Your task to perform on an android device: choose inbox layout in the gmail app Image 0: 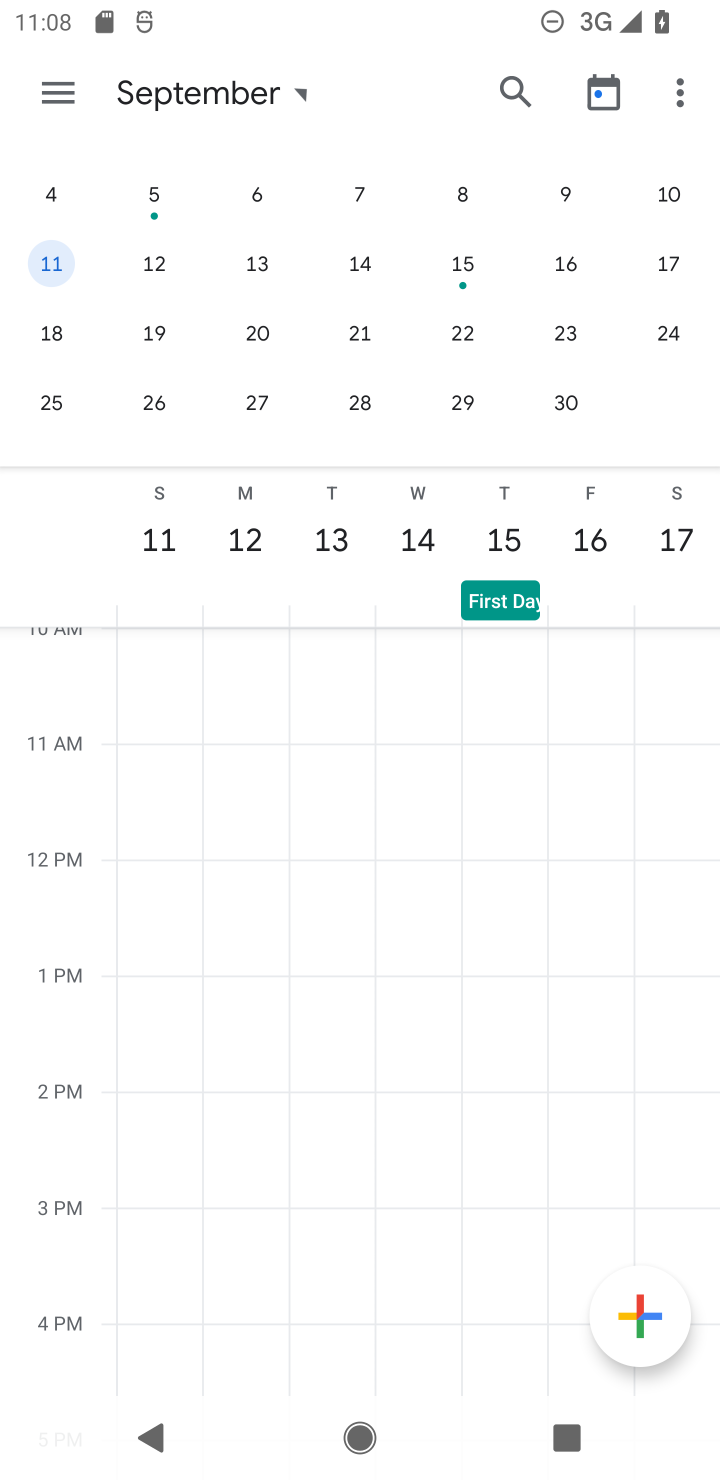
Step 0: press home button
Your task to perform on an android device: choose inbox layout in the gmail app Image 1: 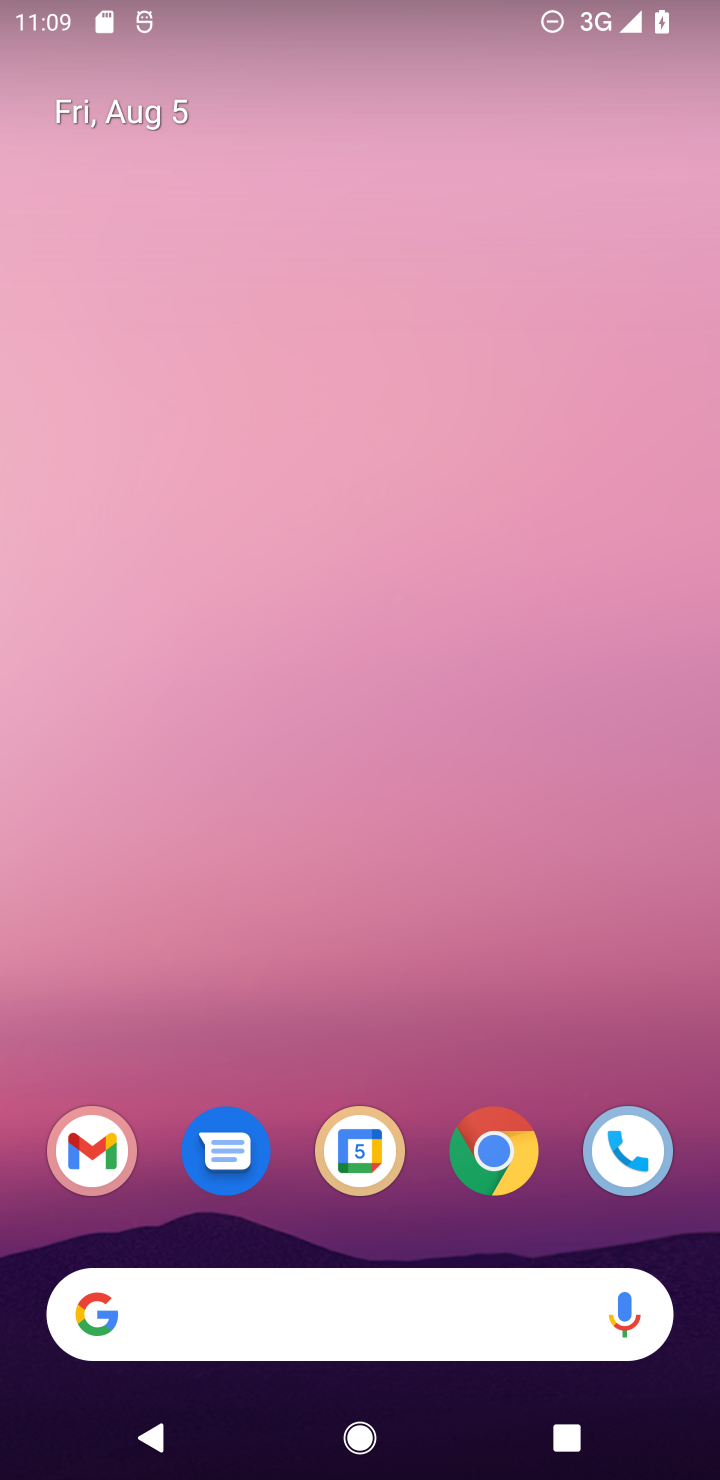
Step 1: click (496, 1158)
Your task to perform on an android device: choose inbox layout in the gmail app Image 2: 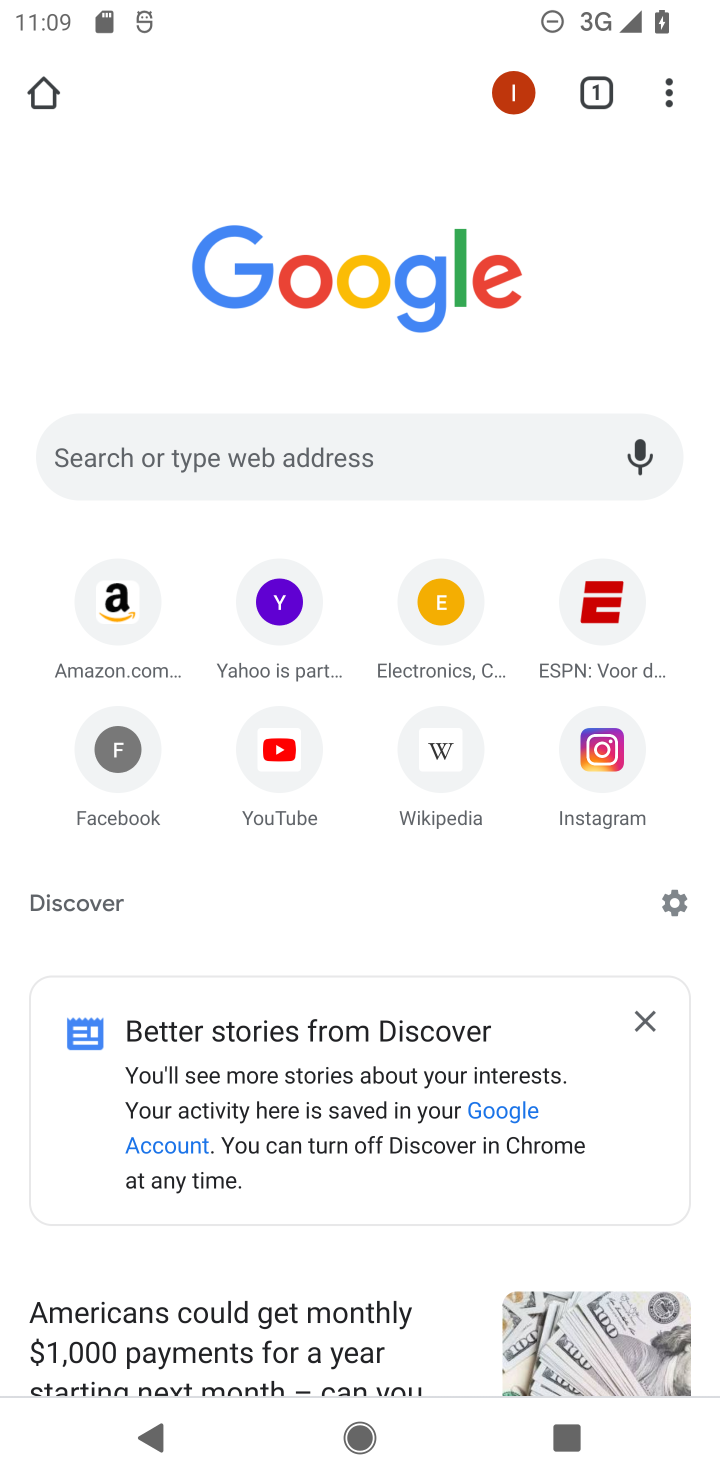
Step 2: press home button
Your task to perform on an android device: choose inbox layout in the gmail app Image 3: 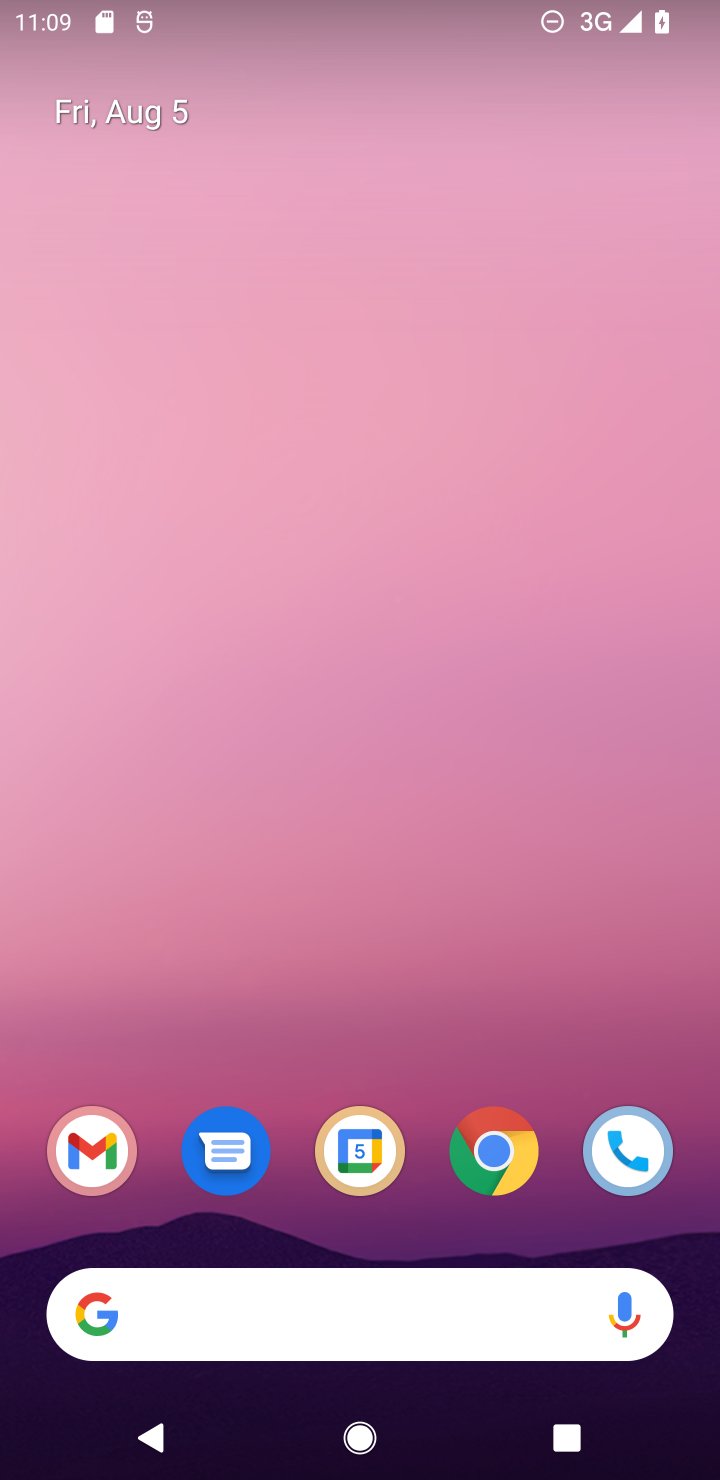
Step 3: click (93, 1149)
Your task to perform on an android device: choose inbox layout in the gmail app Image 4: 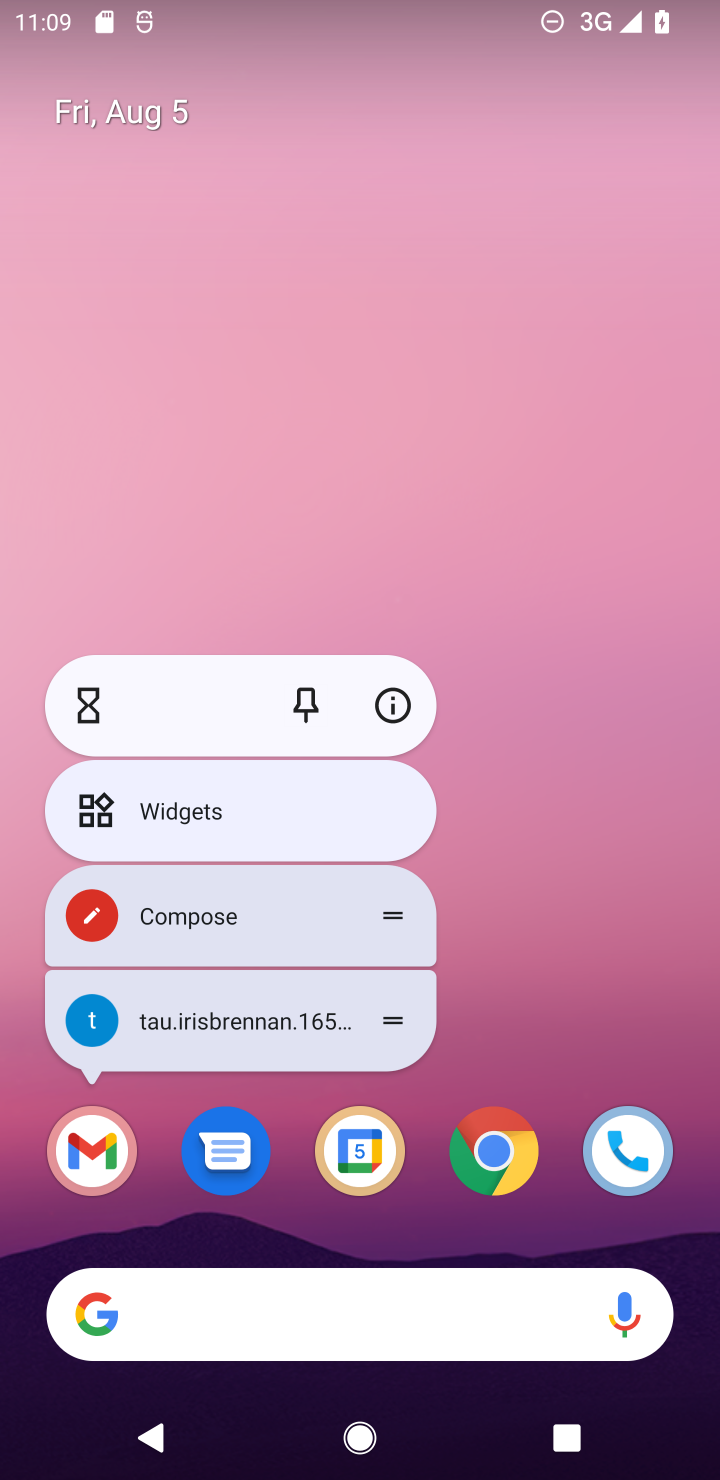
Step 4: click (82, 1155)
Your task to perform on an android device: choose inbox layout in the gmail app Image 5: 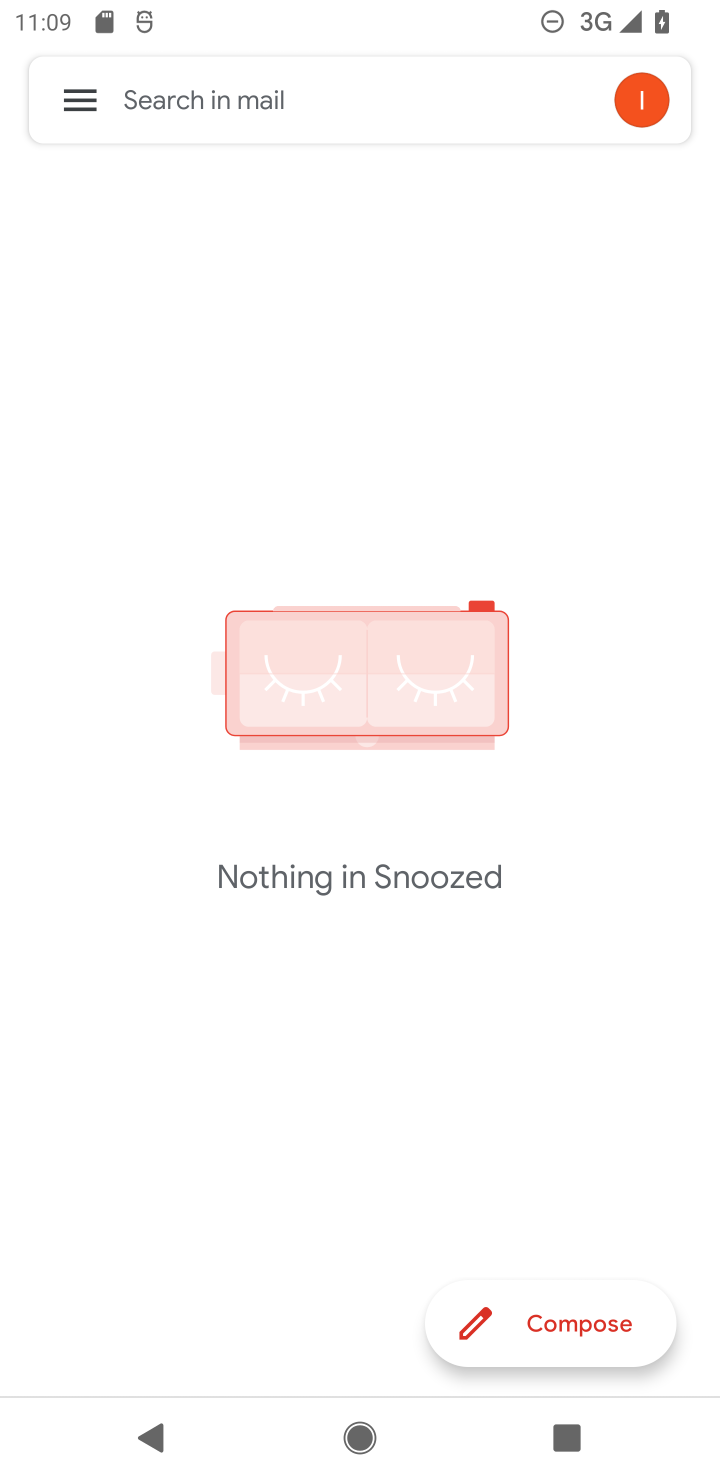
Step 5: click (81, 94)
Your task to perform on an android device: choose inbox layout in the gmail app Image 6: 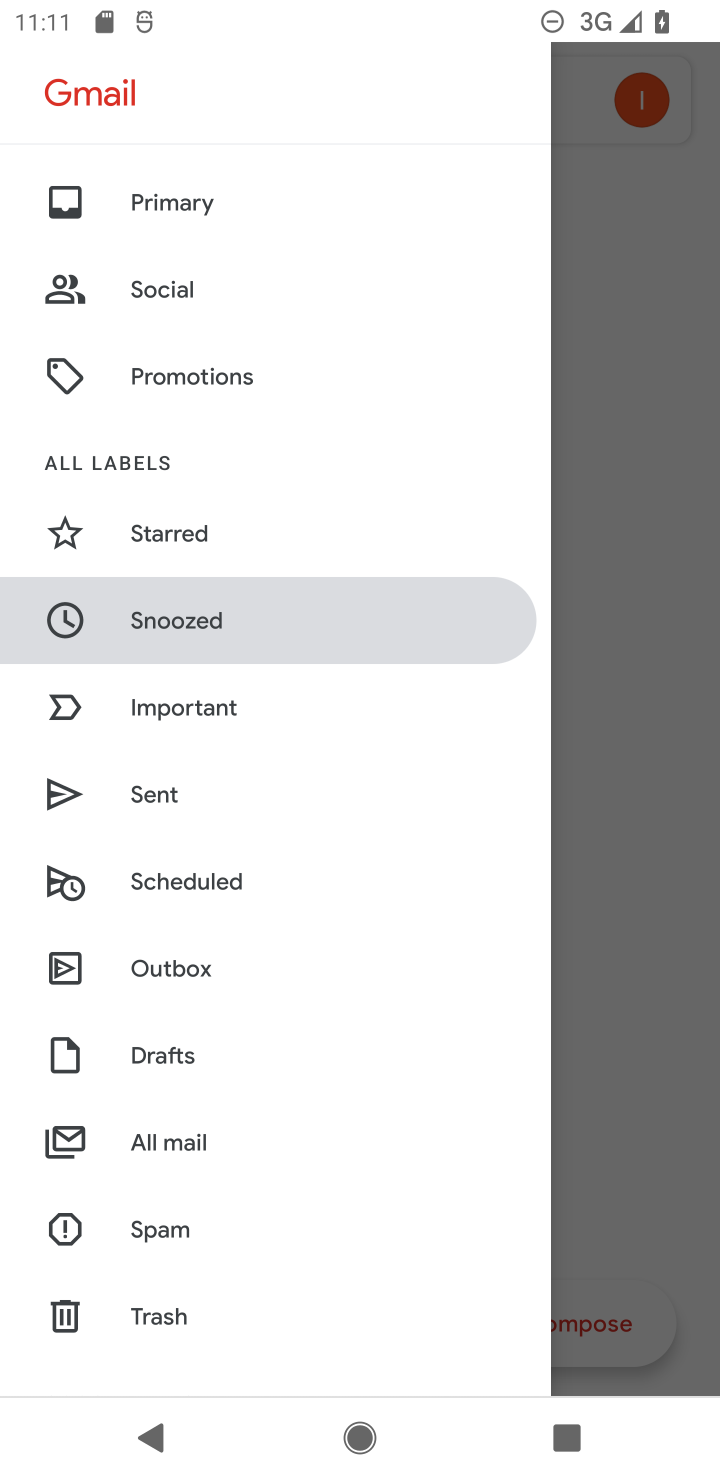
Step 6: click (324, 218)
Your task to perform on an android device: choose inbox layout in the gmail app Image 7: 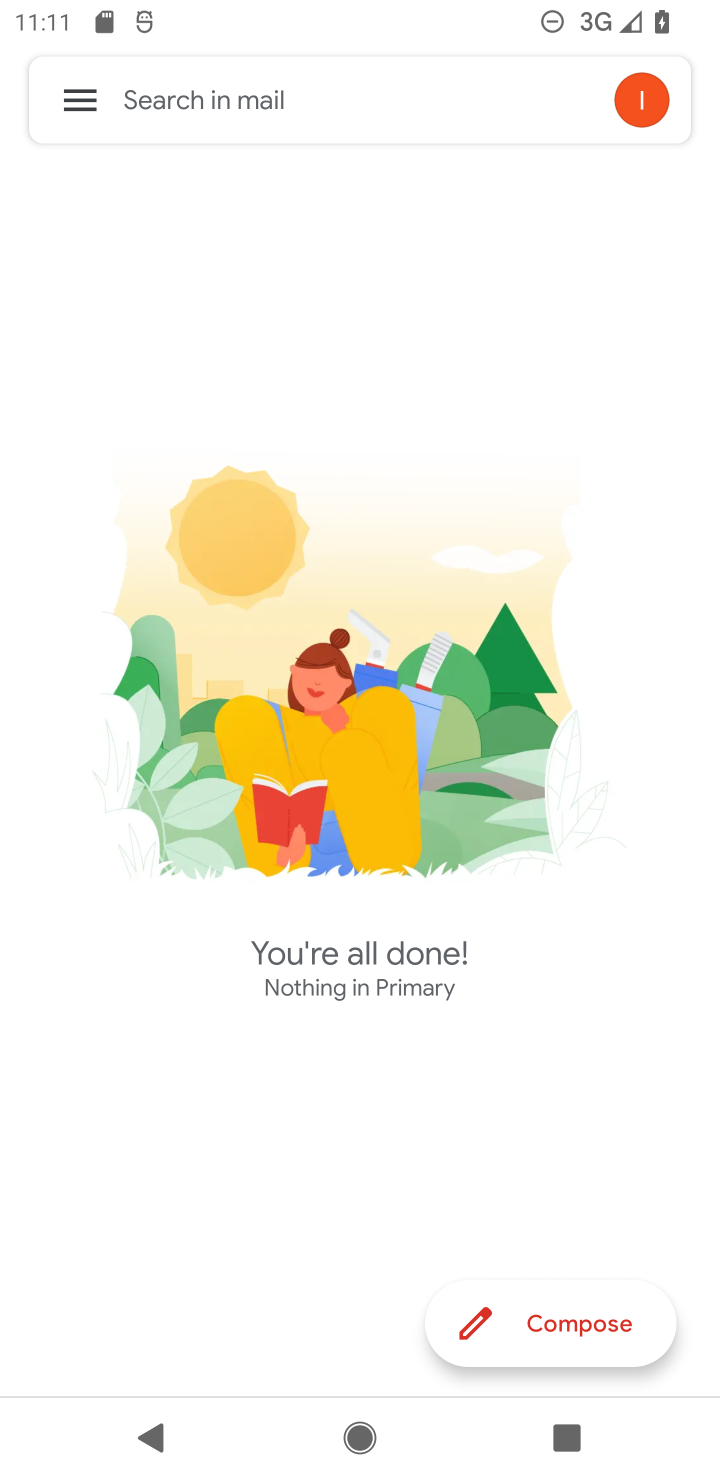
Step 7: click (74, 100)
Your task to perform on an android device: choose inbox layout in the gmail app Image 8: 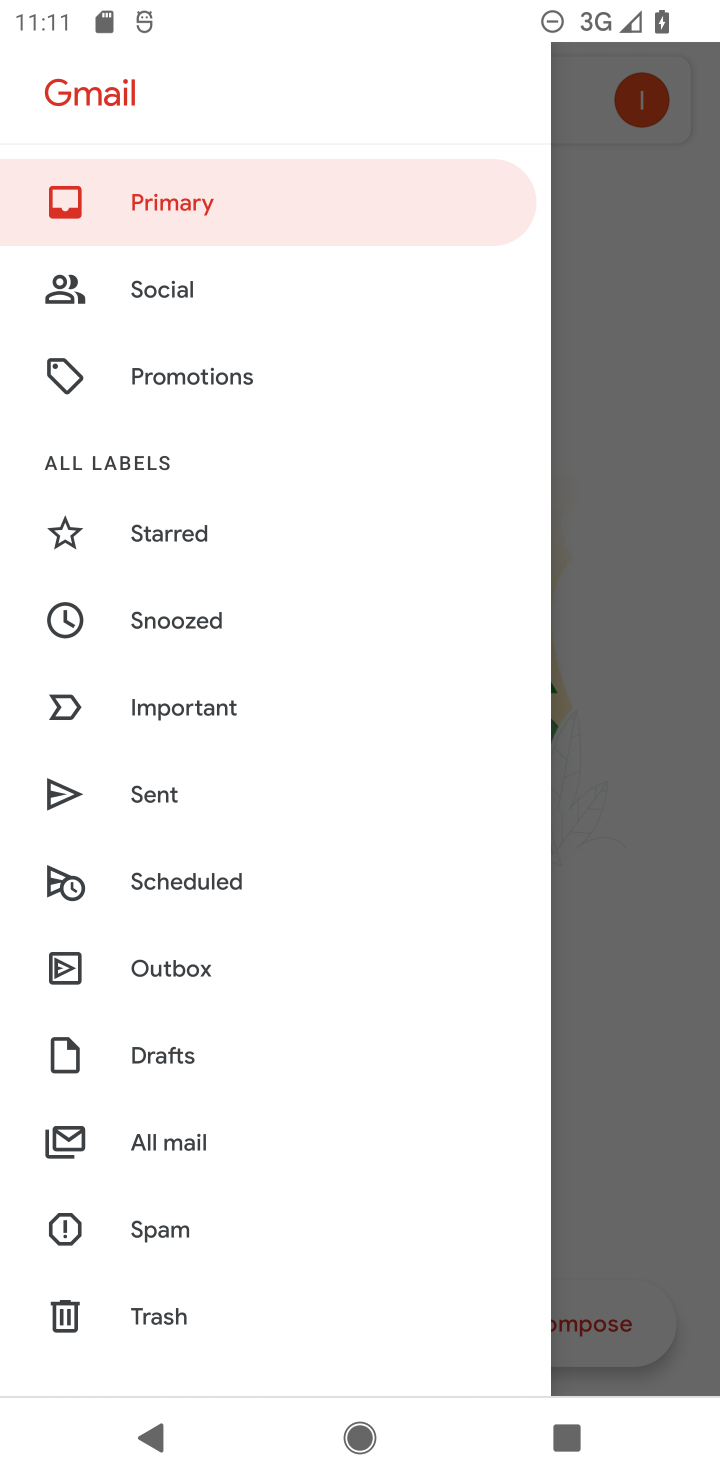
Step 8: drag from (264, 1202) to (307, 461)
Your task to perform on an android device: choose inbox layout in the gmail app Image 9: 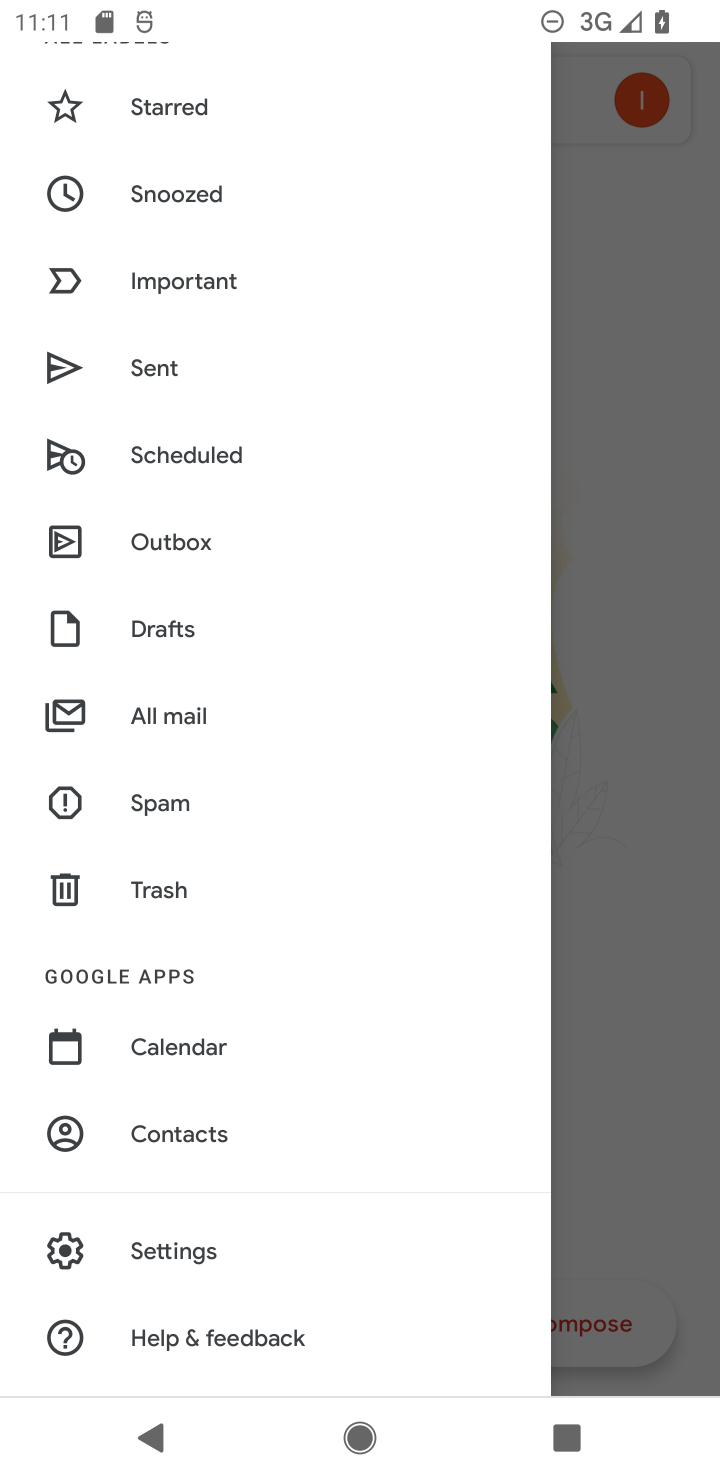
Step 9: click (179, 1248)
Your task to perform on an android device: choose inbox layout in the gmail app Image 10: 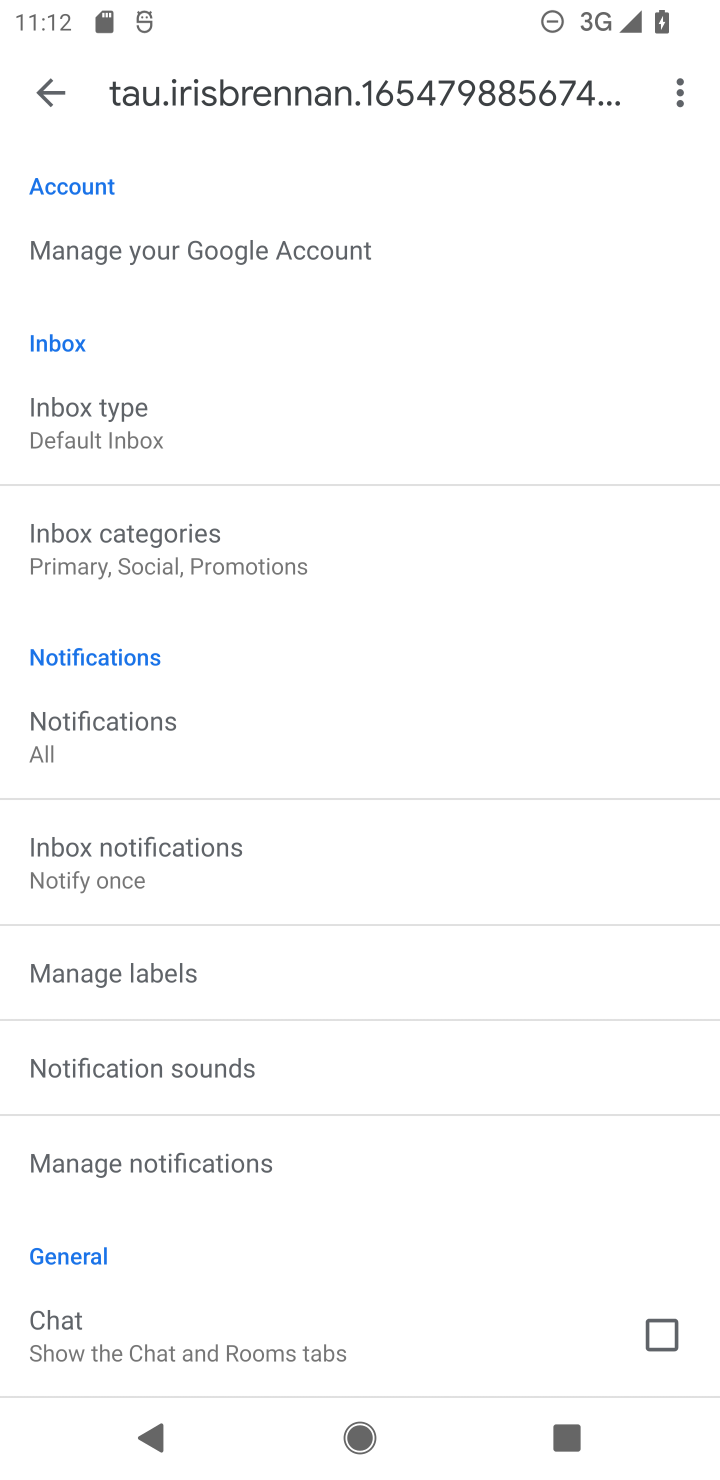
Step 10: drag from (134, 1197) to (134, 742)
Your task to perform on an android device: choose inbox layout in the gmail app Image 11: 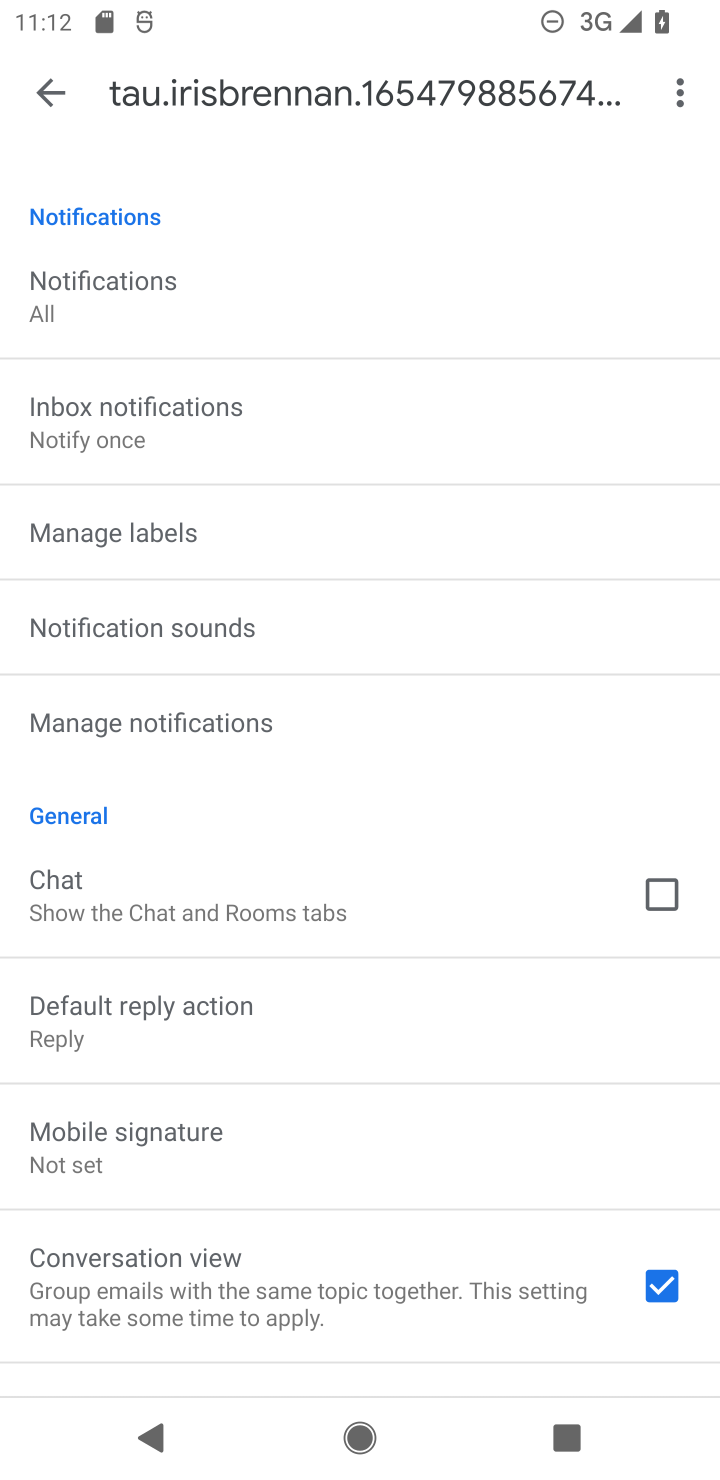
Step 11: drag from (280, 392) to (280, 1028)
Your task to perform on an android device: choose inbox layout in the gmail app Image 12: 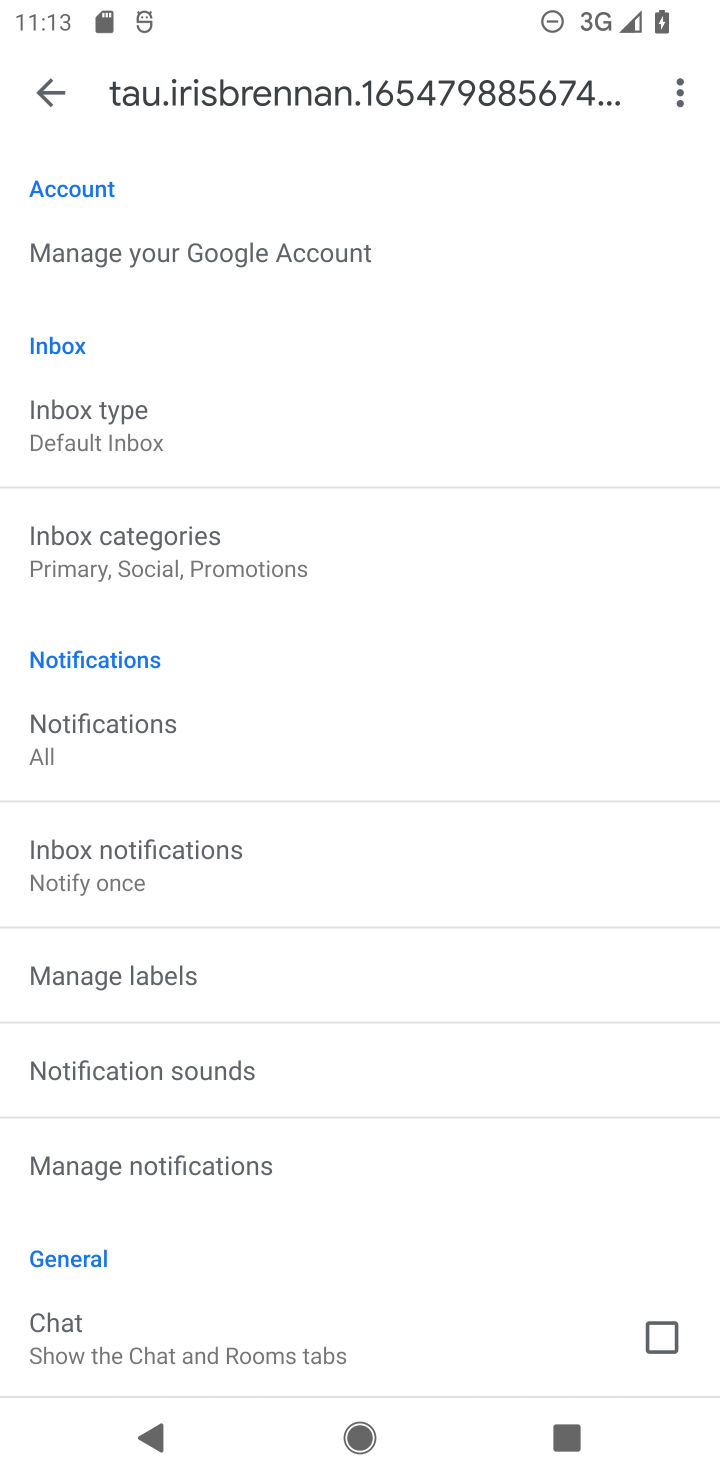
Step 12: click (131, 445)
Your task to perform on an android device: choose inbox layout in the gmail app Image 13: 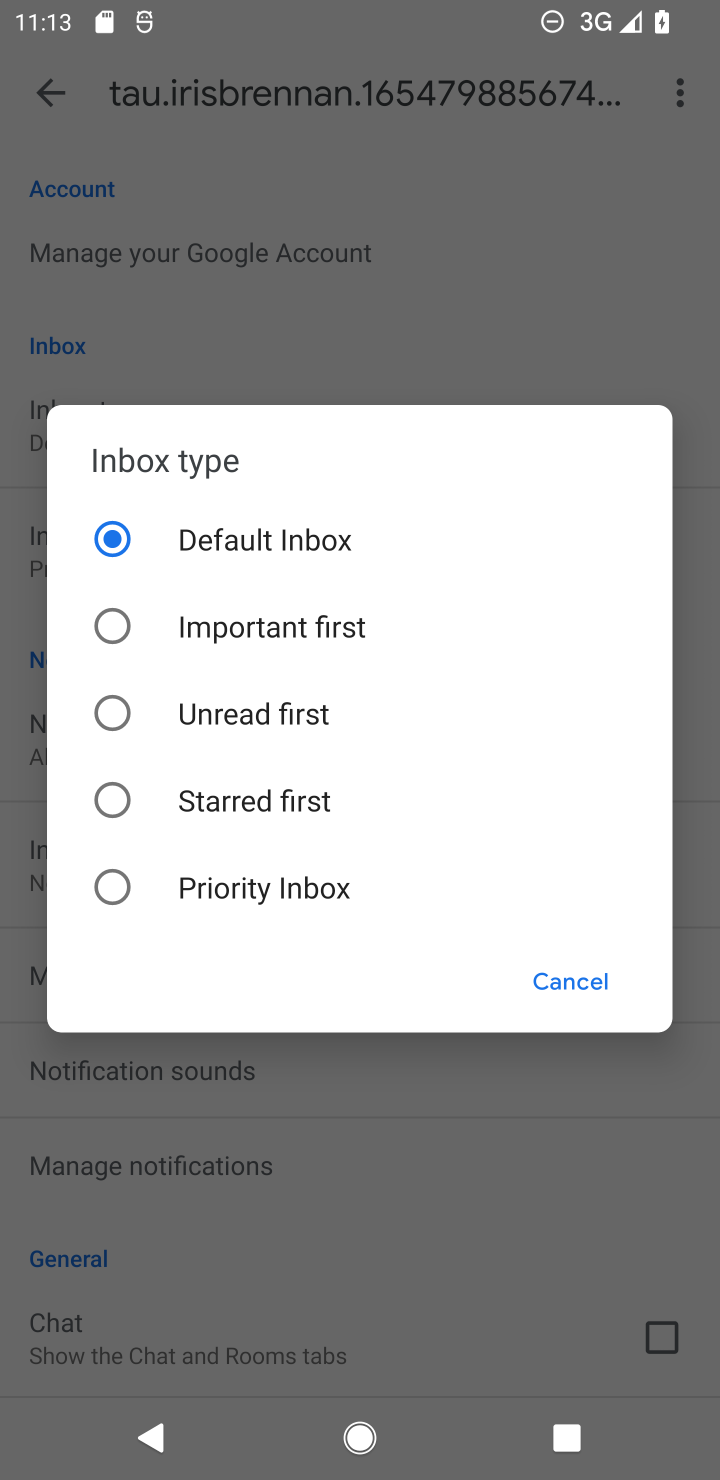
Step 13: click (99, 887)
Your task to perform on an android device: choose inbox layout in the gmail app Image 14: 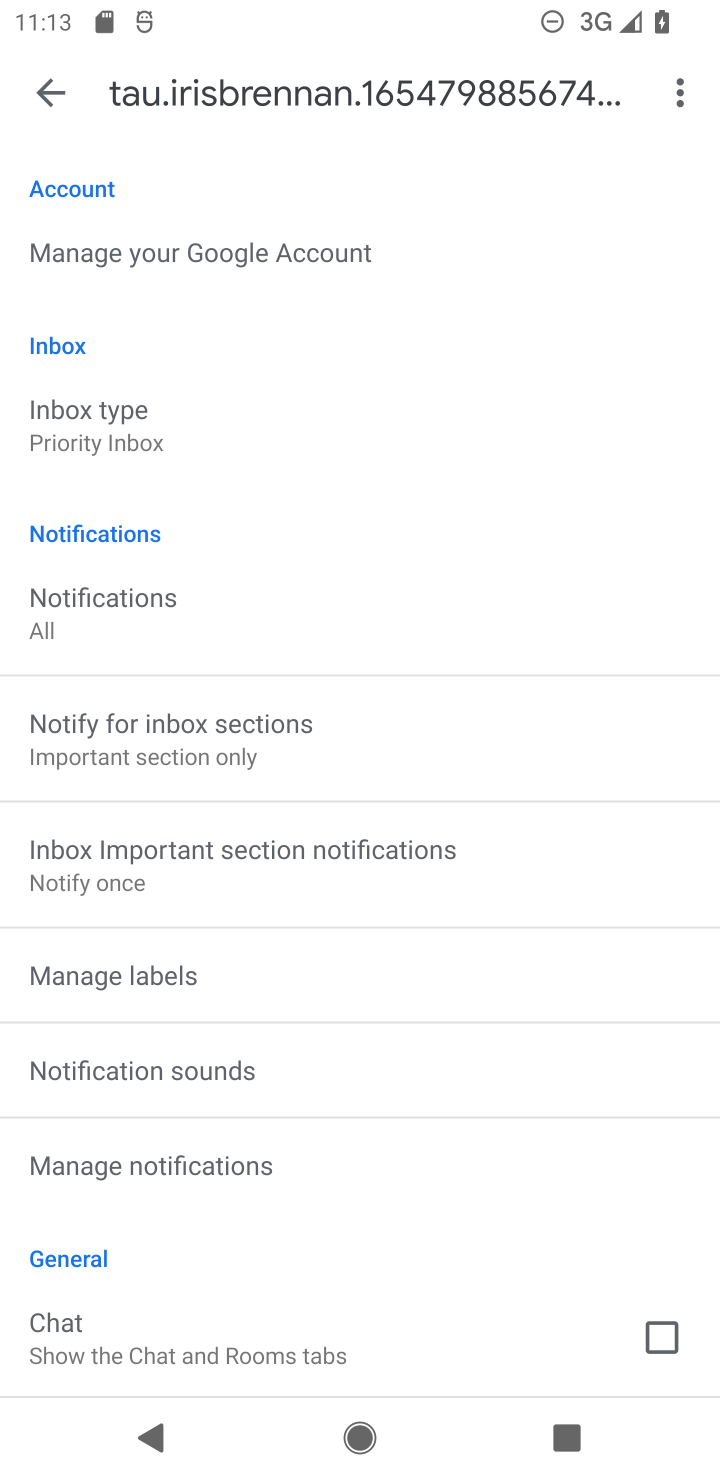
Step 14: task complete